Your task to perform on an android device: turn on translation in the chrome app Image 0: 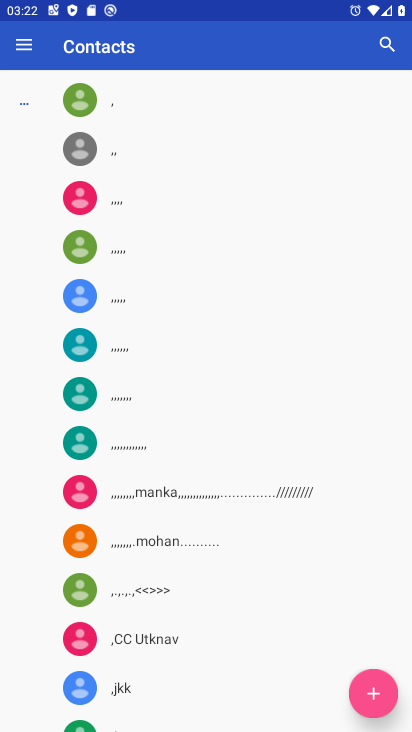
Step 0: press back button
Your task to perform on an android device: turn on translation in the chrome app Image 1: 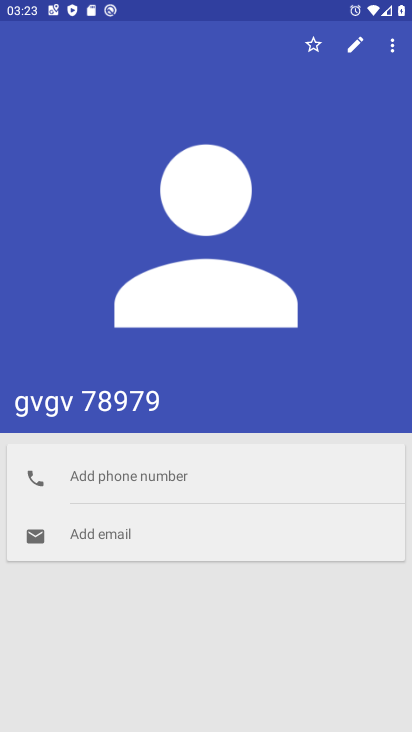
Step 1: press back button
Your task to perform on an android device: turn on translation in the chrome app Image 2: 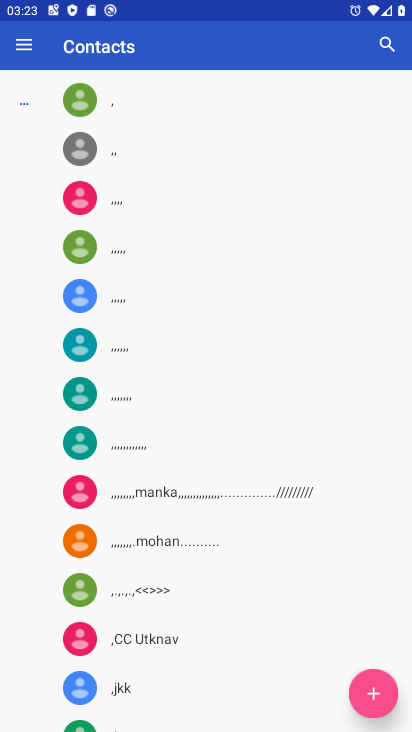
Step 2: press home button
Your task to perform on an android device: turn on translation in the chrome app Image 3: 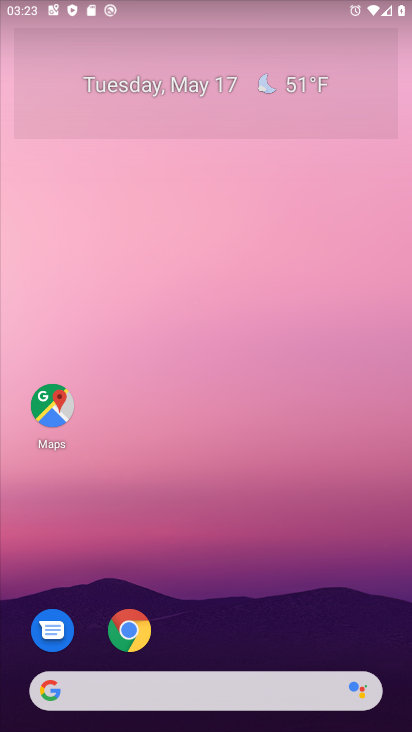
Step 3: click (125, 634)
Your task to perform on an android device: turn on translation in the chrome app Image 4: 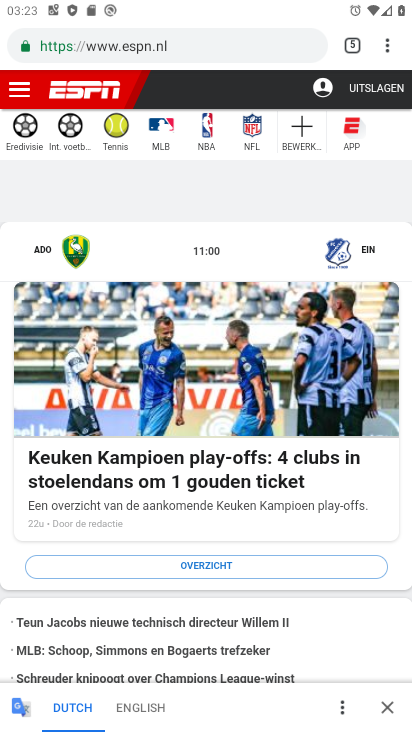
Step 4: drag from (386, 48) to (244, 552)
Your task to perform on an android device: turn on translation in the chrome app Image 5: 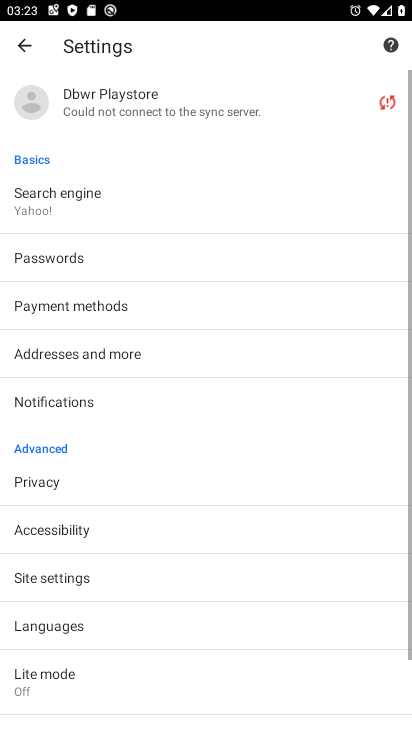
Step 5: click (66, 619)
Your task to perform on an android device: turn on translation in the chrome app Image 6: 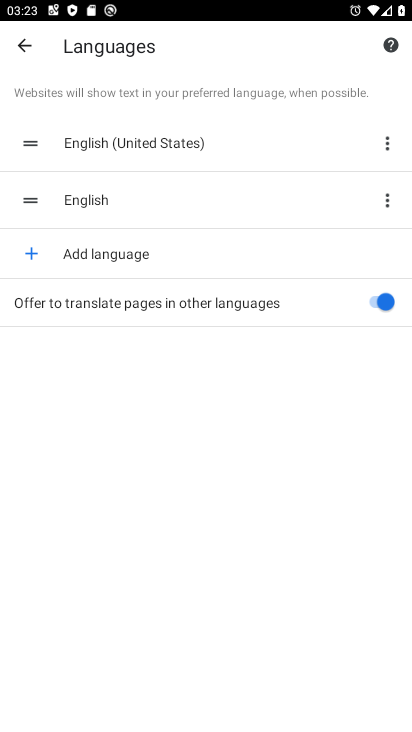
Step 6: task complete